Your task to perform on an android device: Show me popular games on the Play Store Image 0: 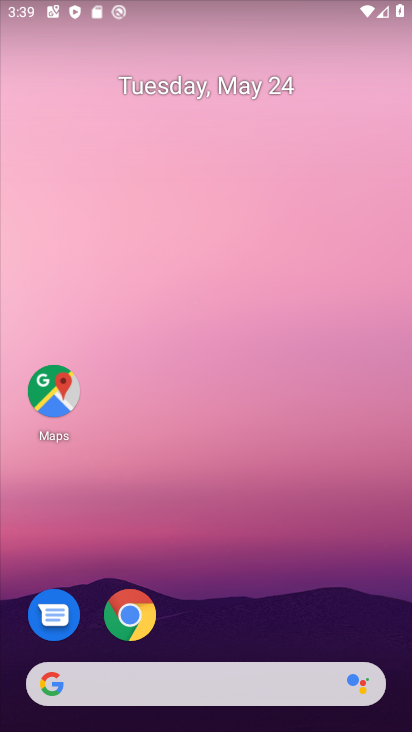
Step 0: drag from (262, 713) to (262, 18)
Your task to perform on an android device: Show me popular games on the Play Store Image 1: 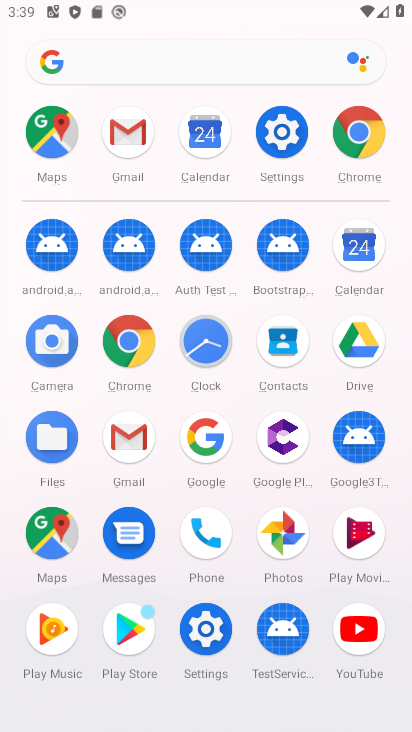
Step 1: click (132, 615)
Your task to perform on an android device: Show me popular games on the Play Store Image 2: 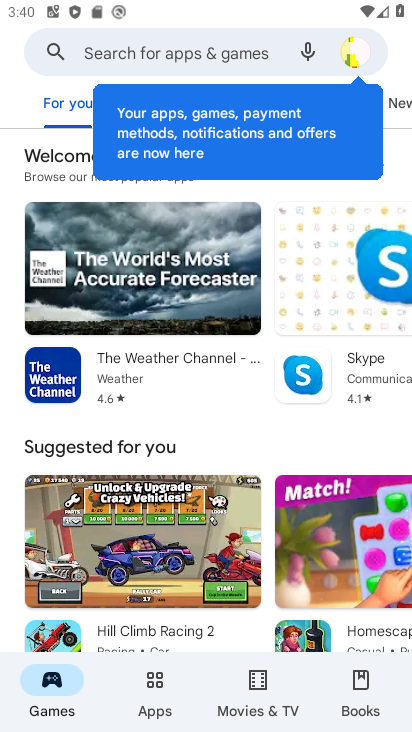
Step 2: drag from (157, 571) to (147, 215)
Your task to perform on an android device: Show me popular games on the Play Store Image 3: 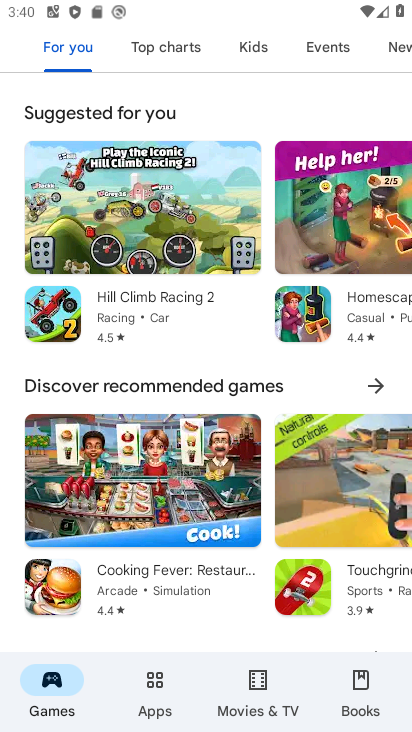
Step 3: drag from (231, 605) to (234, 223)
Your task to perform on an android device: Show me popular games on the Play Store Image 4: 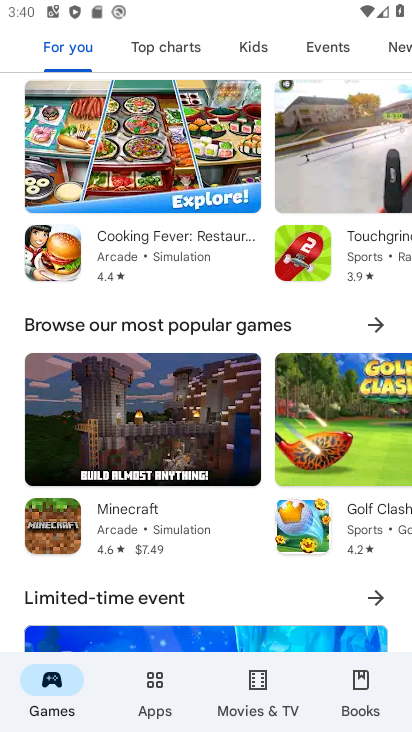
Step 4: click (377, 321)
Your task to perform on an android device: Show me popular games on the Play Store Image 5: 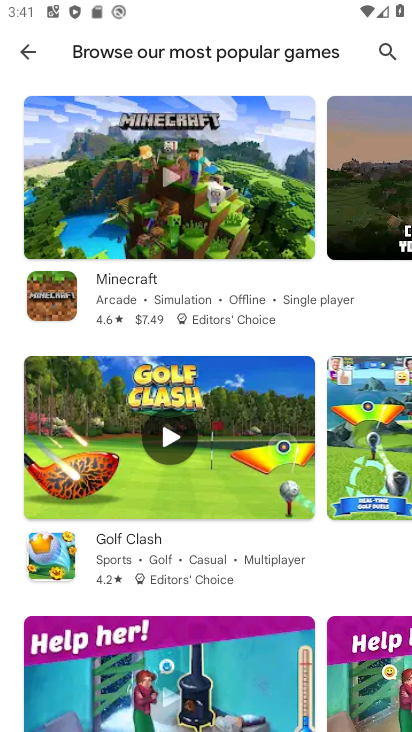
Step 5: task complete